Your task to perform on an android device: Check the weather Image 0: 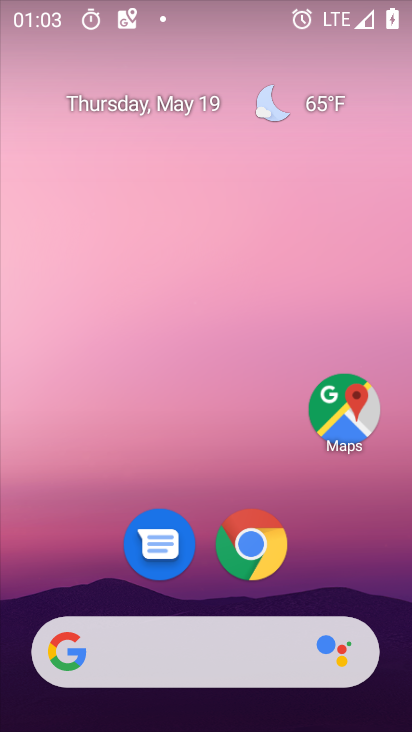
Step 0: click (211, 665)
Your task to perform on an android device: Check the weather Image 1: 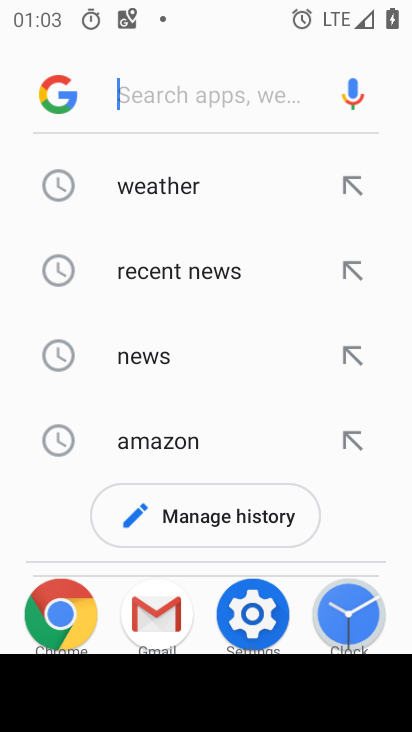
Step 1: click (191, 197)
Your task to perform on an android device: Check the weather Image 2: 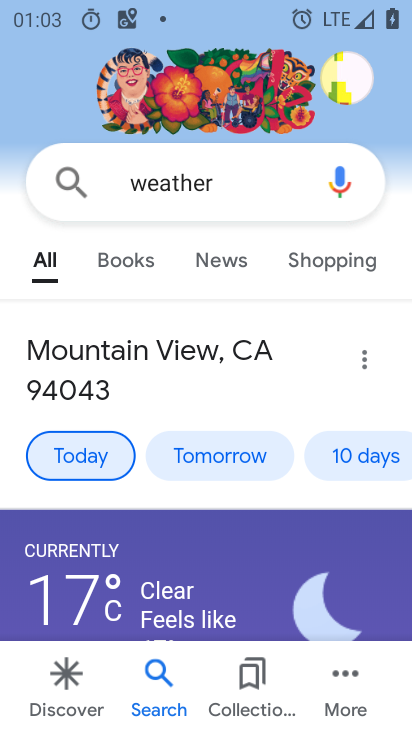
Step 2: task complete